Your task to perform on an android device: Go to Google Image 0: 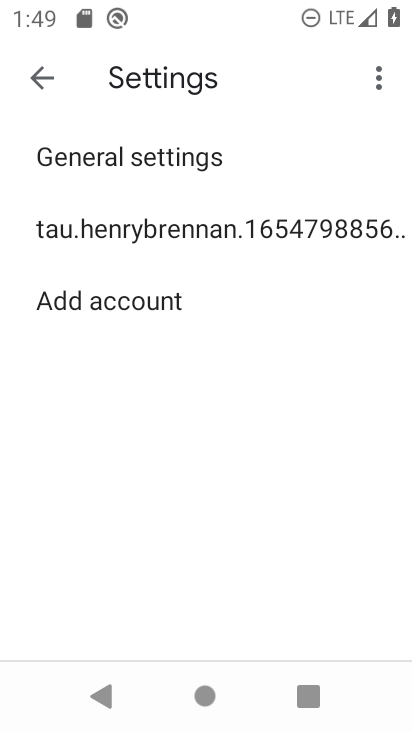
Step 0: press home button
Your task to perform on an android device: Go to Google Image 1: 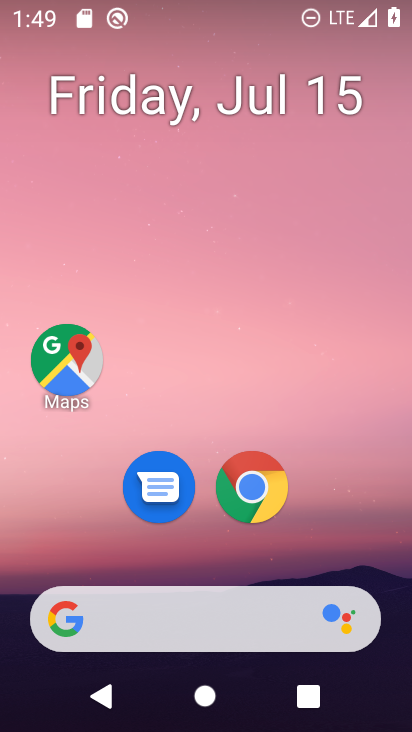
Step 1: drag from (170, 665) to (220, 142)
Your task to perform on an android device: Go to Google Image 2: 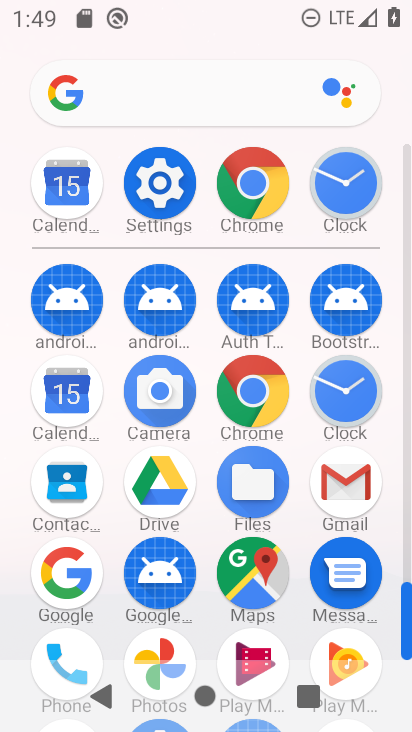
Step 2: drag from (168, 456) to (155, 133)
Your task to perform on an android device: Go to Google Image 3: 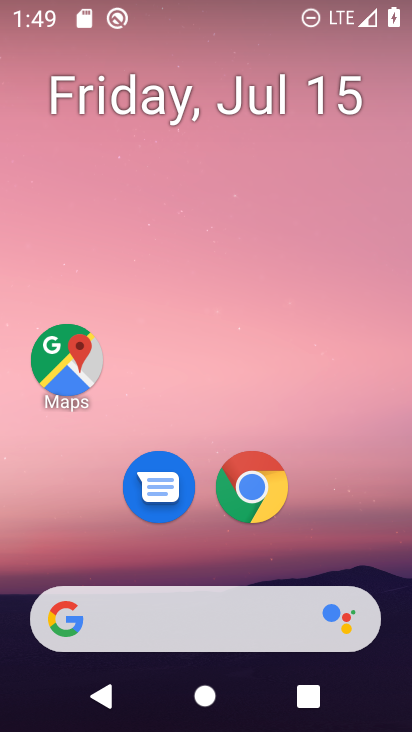
Step 3: drag from (164, 582) to (118, 109)
Your task to perform on an android device: Go to Google Image 4: 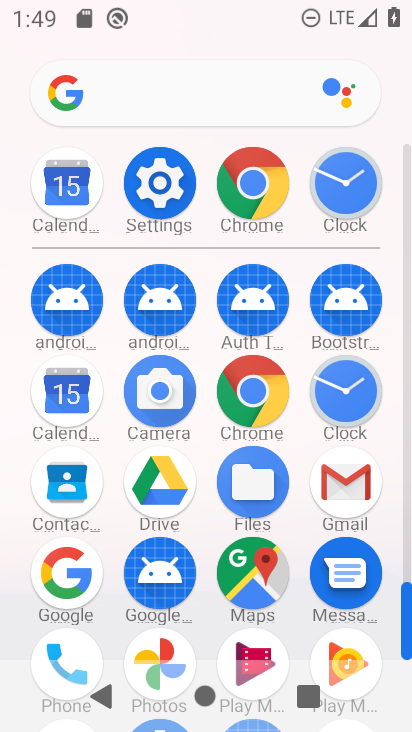
Step 4: drag from (106, 445) to (87, 314)
Your task to perform on an android device: Go to Google Image 5: 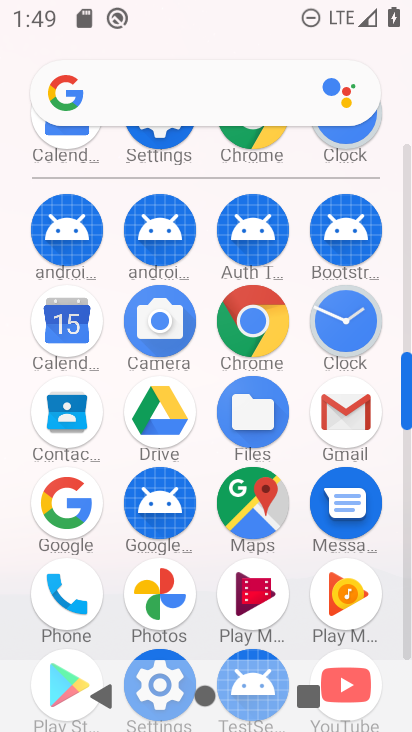
Step 5: click (60, 507)
Your task to perform on an android device: Go to Google Image 6: 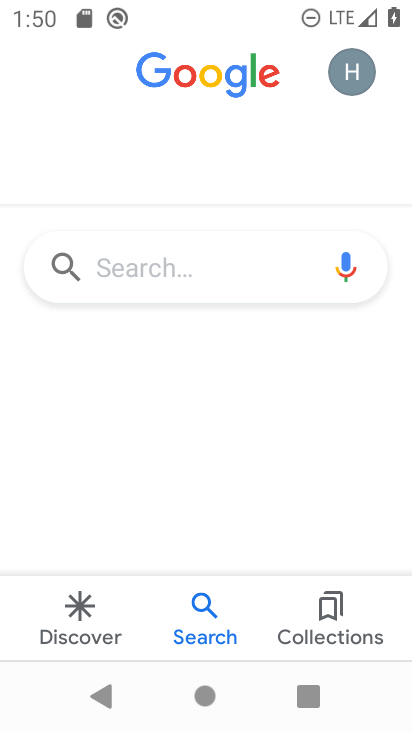
Step 6: task complete